Your task to perform on an android device: Search for sushi restaurants on Maps Image 0: 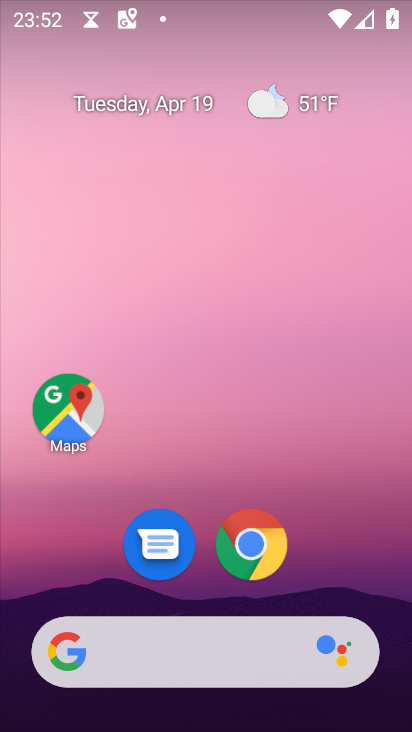
Step 0: drag from (204, 588) to (266, 8)
Your task to perform on an android device: Search for sushi restaurants on Maps Image 1: 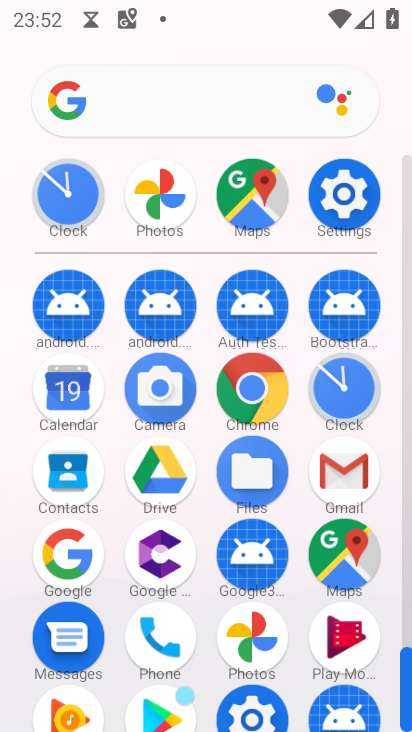
Step 1: click (259, 199)
Your task to perform on an android device: Search for sushi restaurants on Maps Image 2: 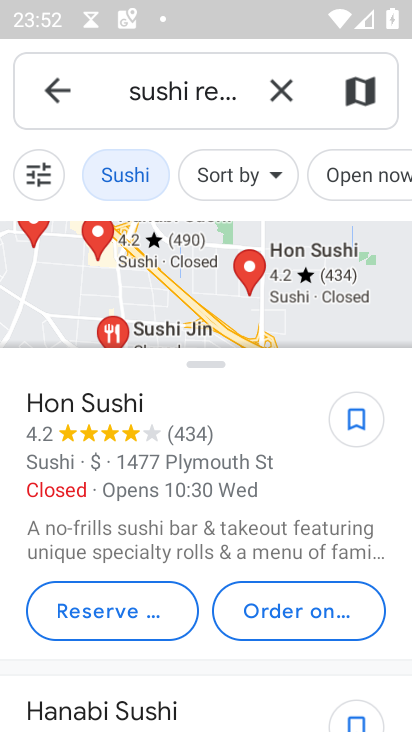
Step 2: task complete